Your task to perform on an android device: check data usage Image 0: 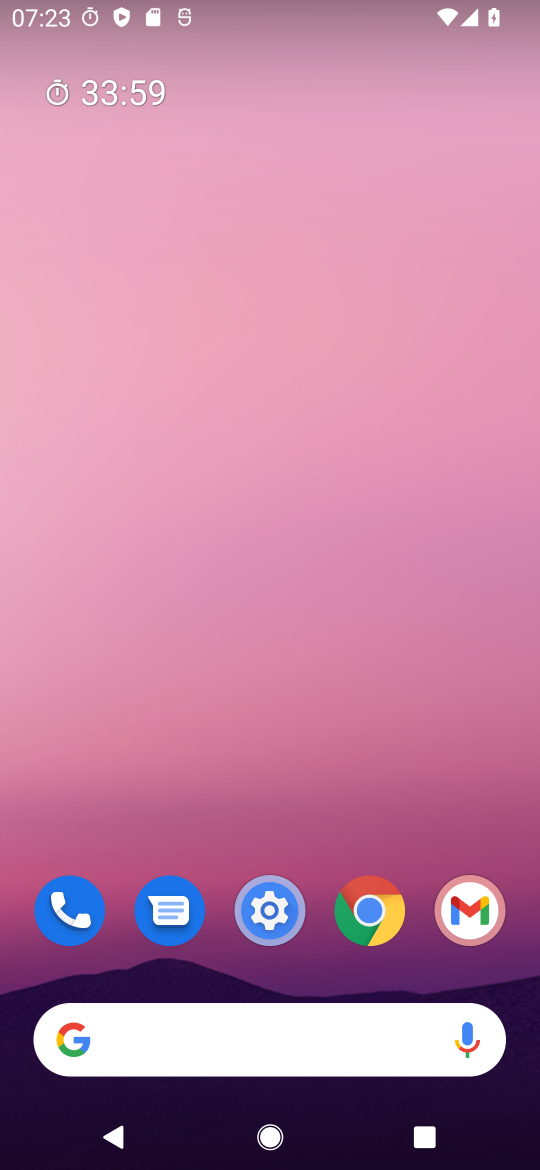
Step 0: drag from (309, 1050) to (318, 138)
Your task to perform on an android device: check data usage Image 1: 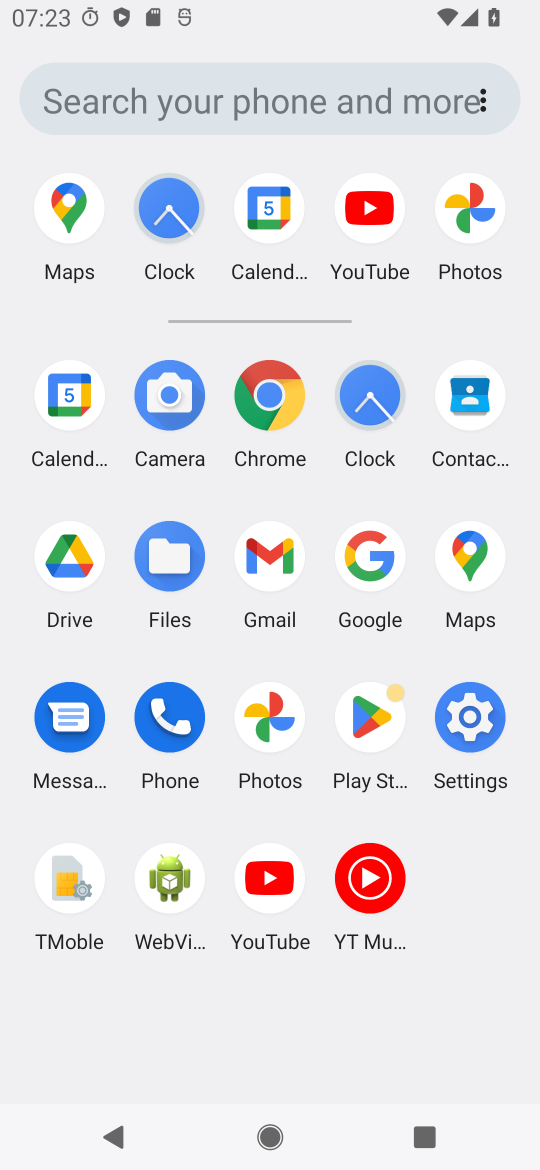
Step 1: click (445, 690)
Your task to perform on an android device: check data usage Image 2: 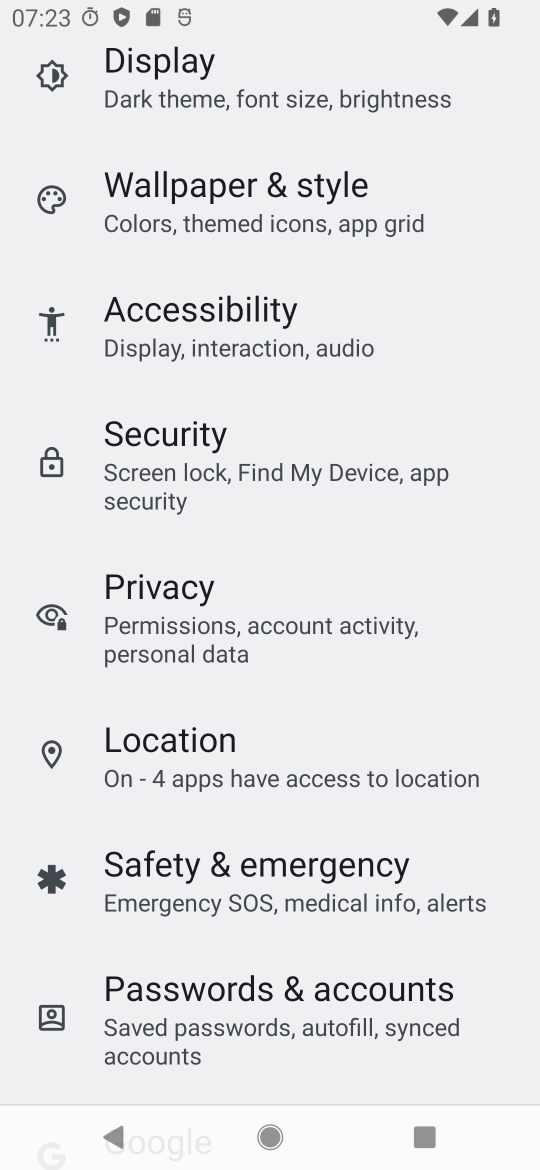
Step 2: drag from (446, 89) to (472, 1041)
Your task to perform on an android device: check data usage Image 3: 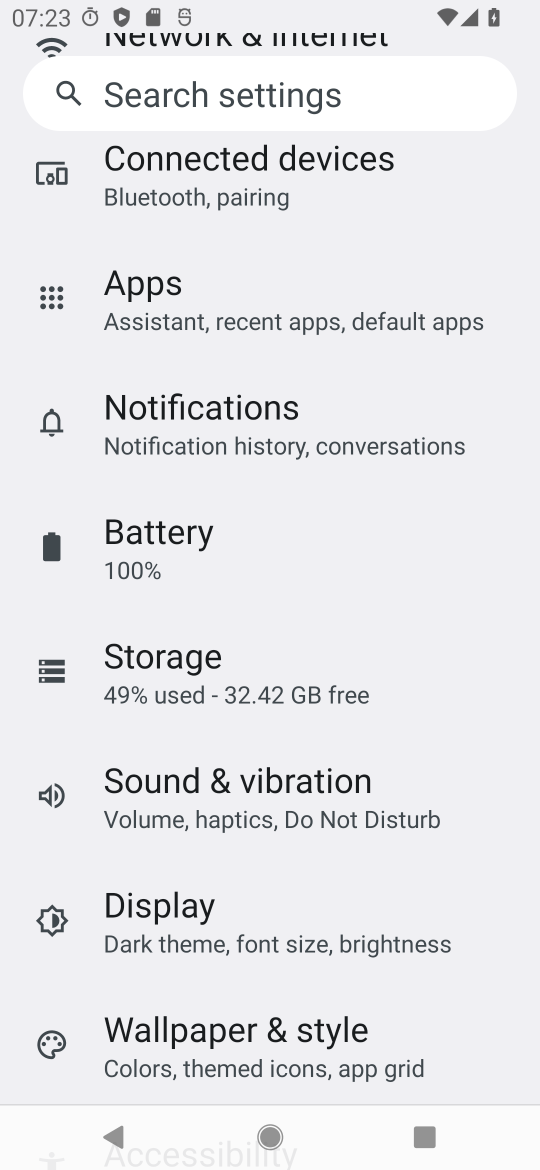
Step 3: drag from (420, 235) to (399, 1118)
Your task to perform on an android device: check data usage Image 4: 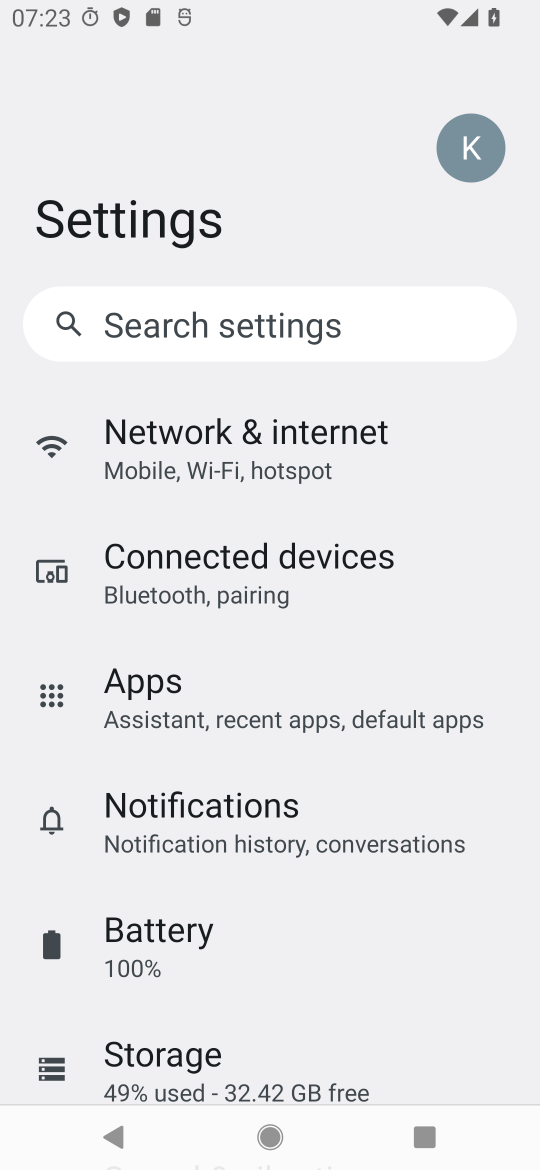
Step 4: click (299, 446)
Your task to perform on an android device: check data usage Image 5: 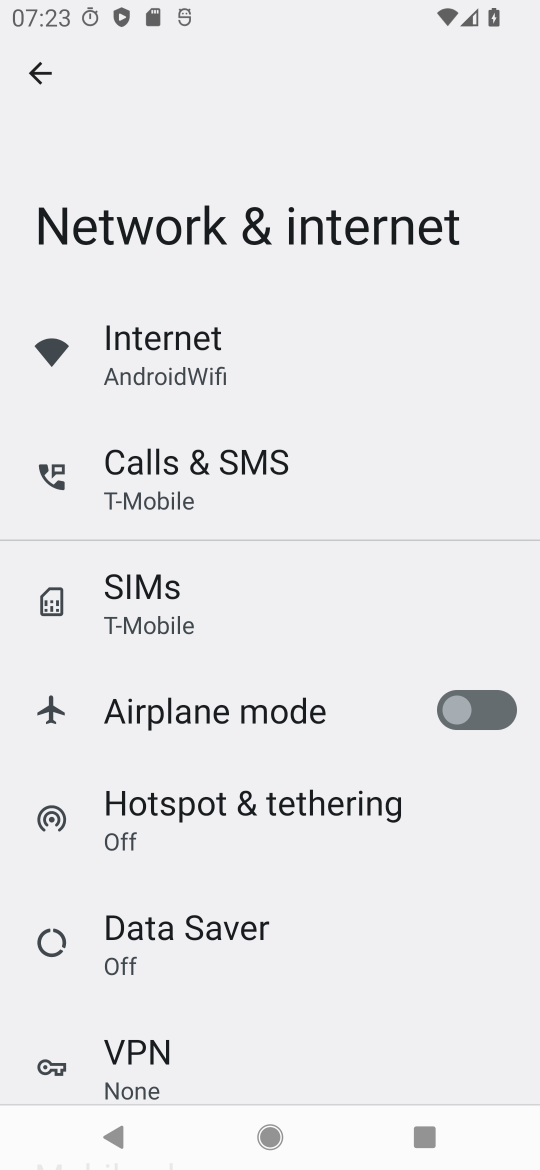
Step 5: click (244, 943)
Your task to perform on an android device: check data usage Image 6: 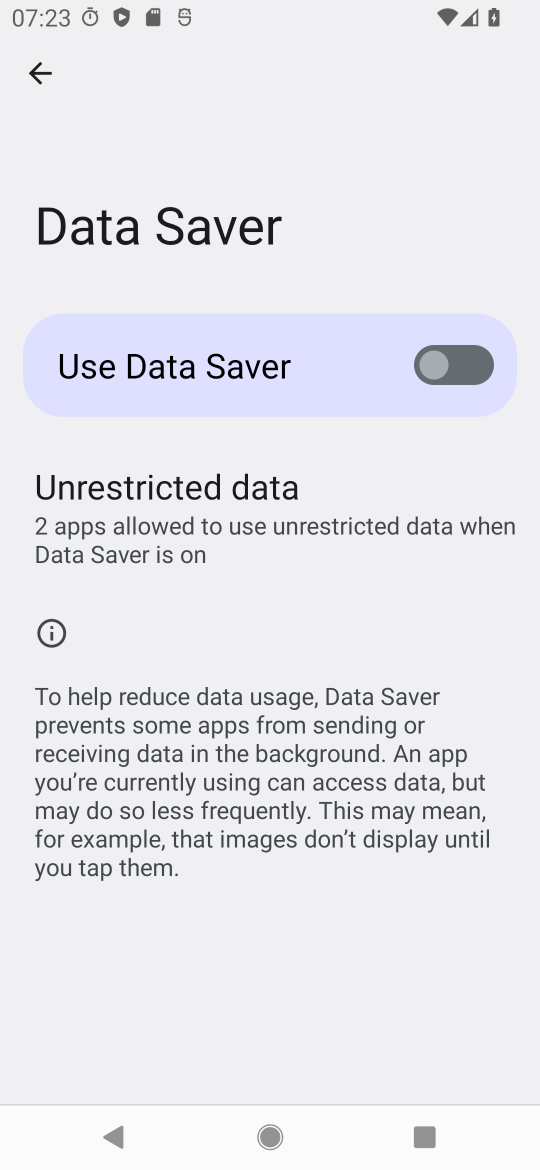
Step 6: task complete